Your task to perform on an android device: set the stopwatch Image 0: 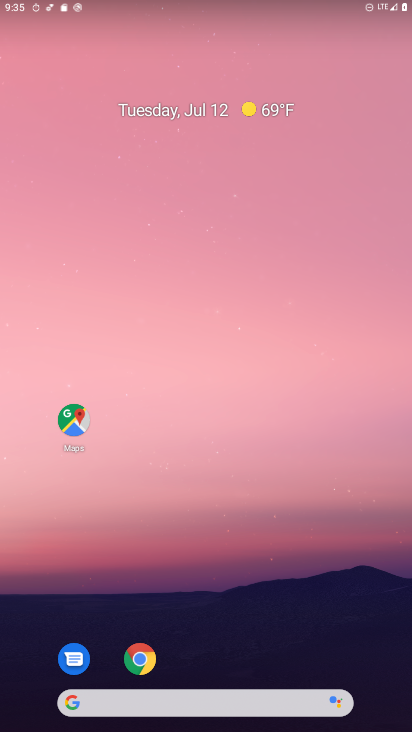
Step 0: drag from (222, 728) to (227, 154)
Your task to perform on an android device: set the stopwatch Image 1: 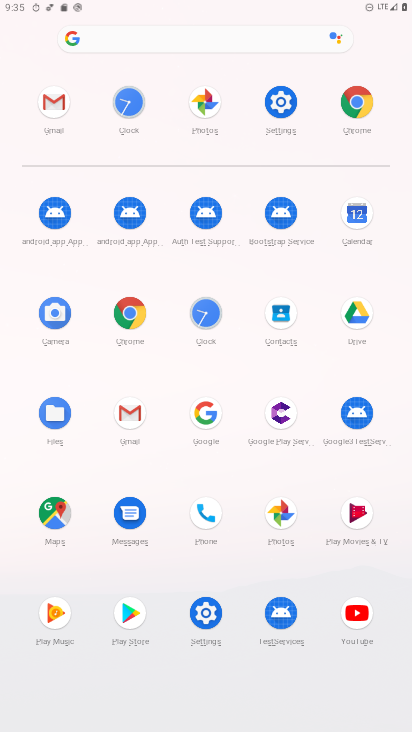
Step 1: click (196, 307)
Your task to perform on an android device: set the stopwatch Image 2: 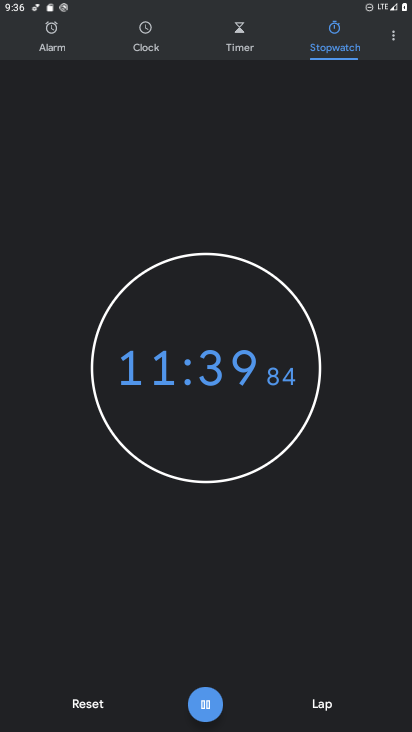
Step 2: click (78, 704)
Your task to perform on an android device: set the stopwatch Image 3: 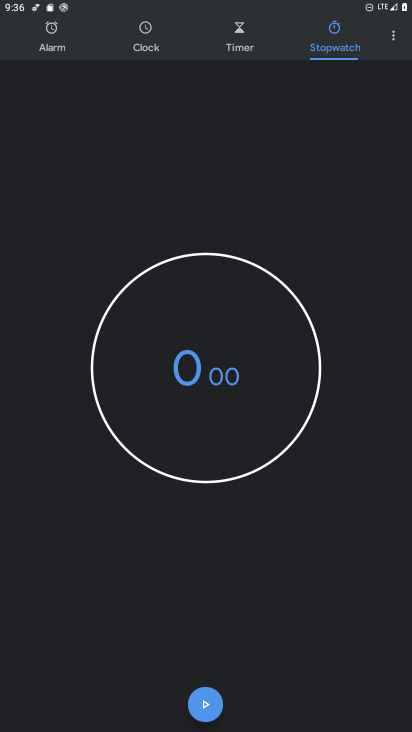
Step 3: click (217, 377)
Your task to perform on an android device: set the stopwatch Image 4: 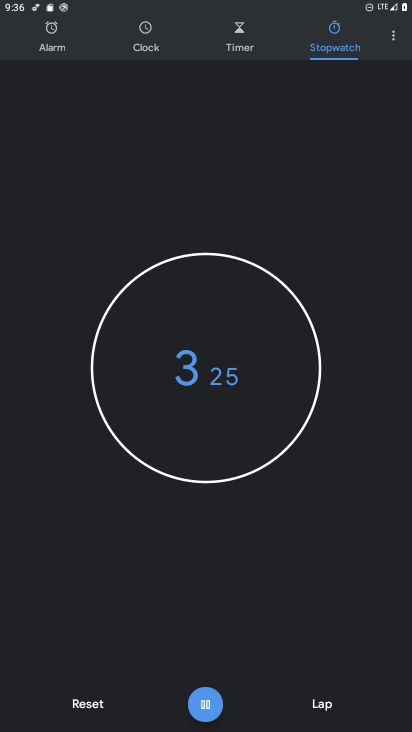
Step 4: type "787"
Your task to perform on an android device: set the stopwatch Image 5: 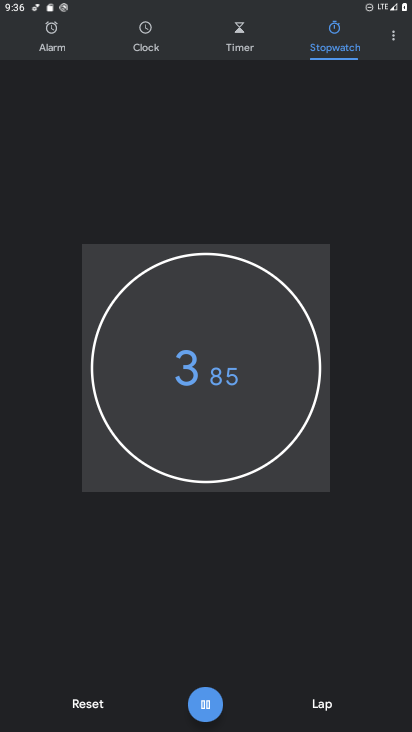
Step 5: type ""
Your task to perform on an android device: set the stopwatch Image 6: 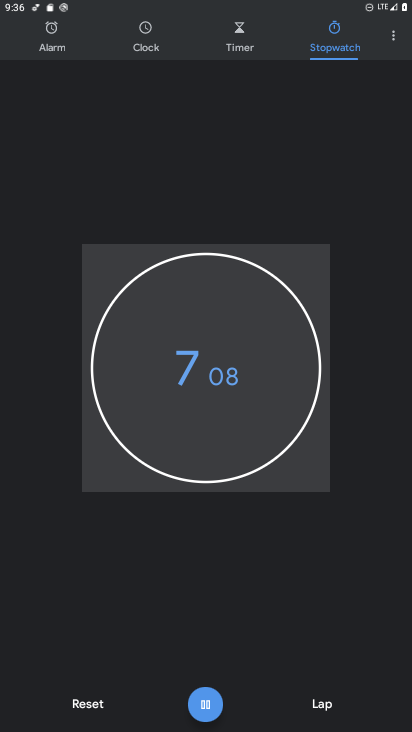
Step 6: task complete